Your task to perform on an android device: open app "Pinterest" (install if not already installed) and go to login screen Image 0: 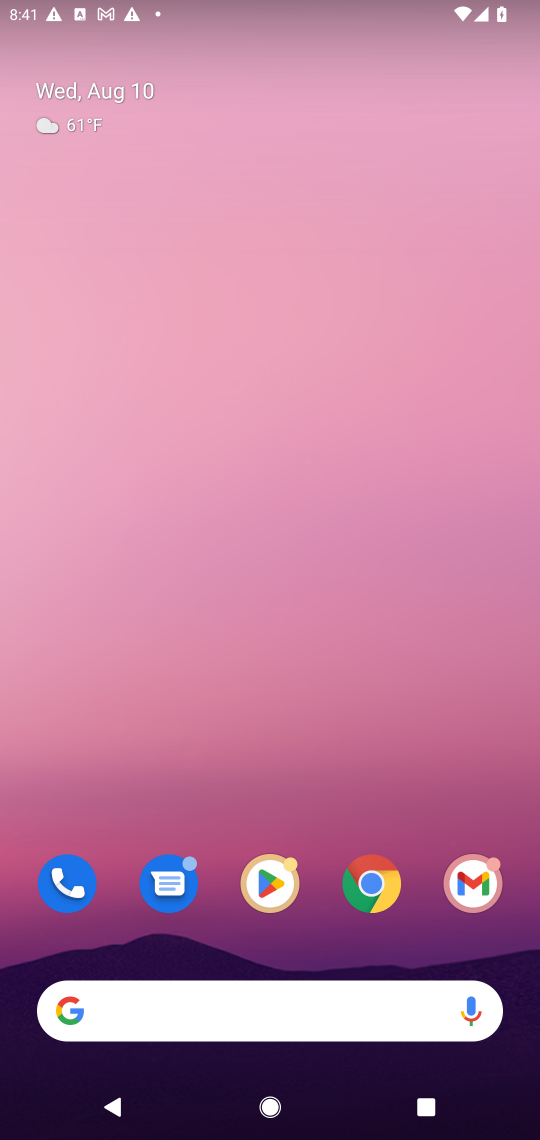
Step 0: click (289, 866)
Your task to perform on an android device: open app "Pinterest" (install if not already installed) and go to login screen Image 1: 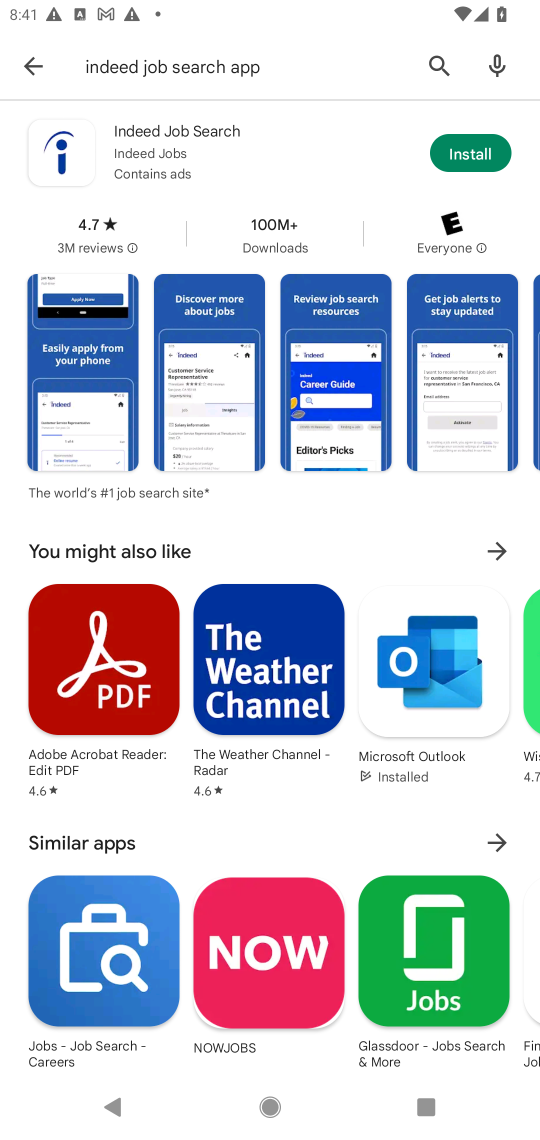
Step 1: click (423, 39)
Your task to perform on an android device: open app "Pinterest" (install if not already installed) and go to login screen Image 2: 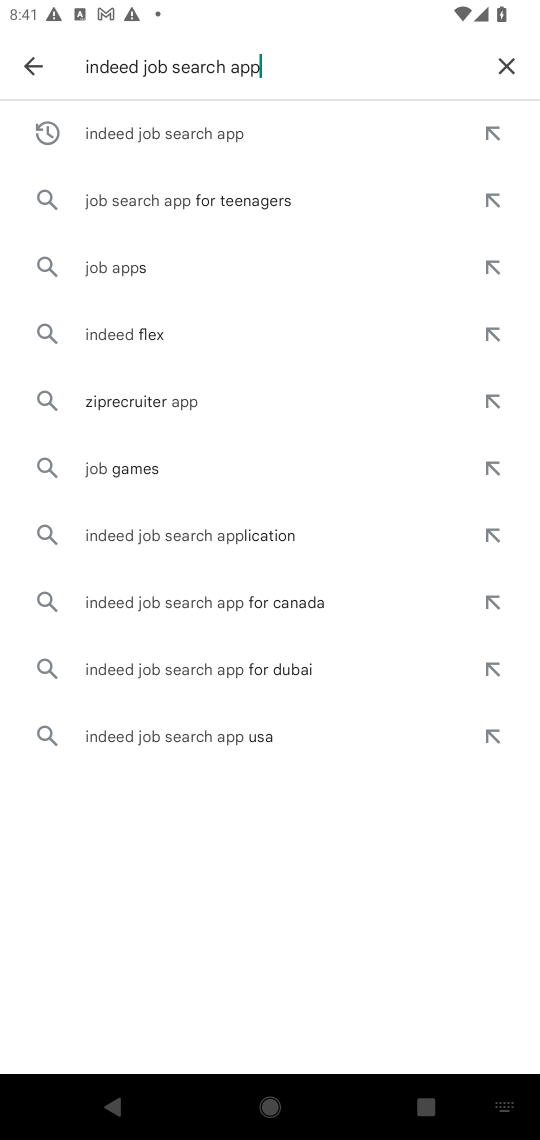
Step 2: click (504, 58)
Your task to perform on an android device: open app "Pinterest" (install if not already installed) and go to login screen Image 3: 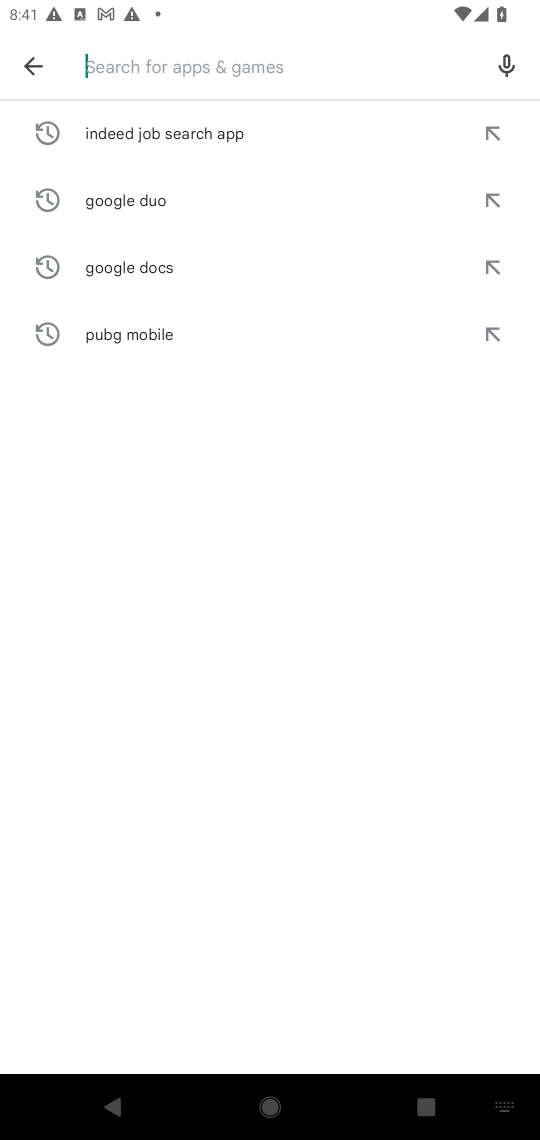
Step 3: type "Pinterest"
Your task to perform on an android device: open app "Pinterest" (install if not already installed) and go to login screen Image 4: 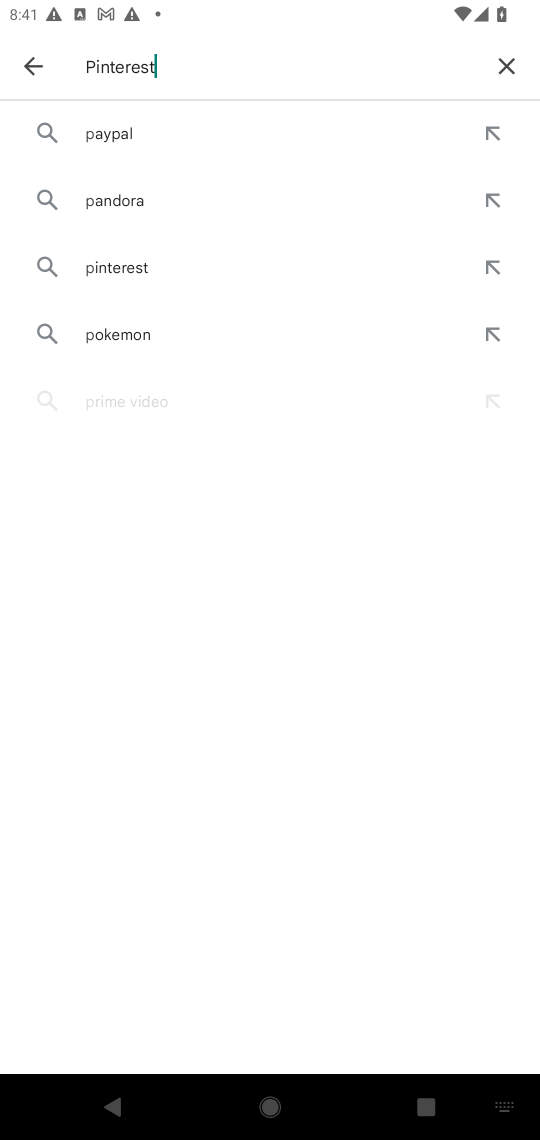
Step 4: type ""
Your task to perform on an android device: open app "Pinterest" (install if not already installed) and go to login screen Image 5: 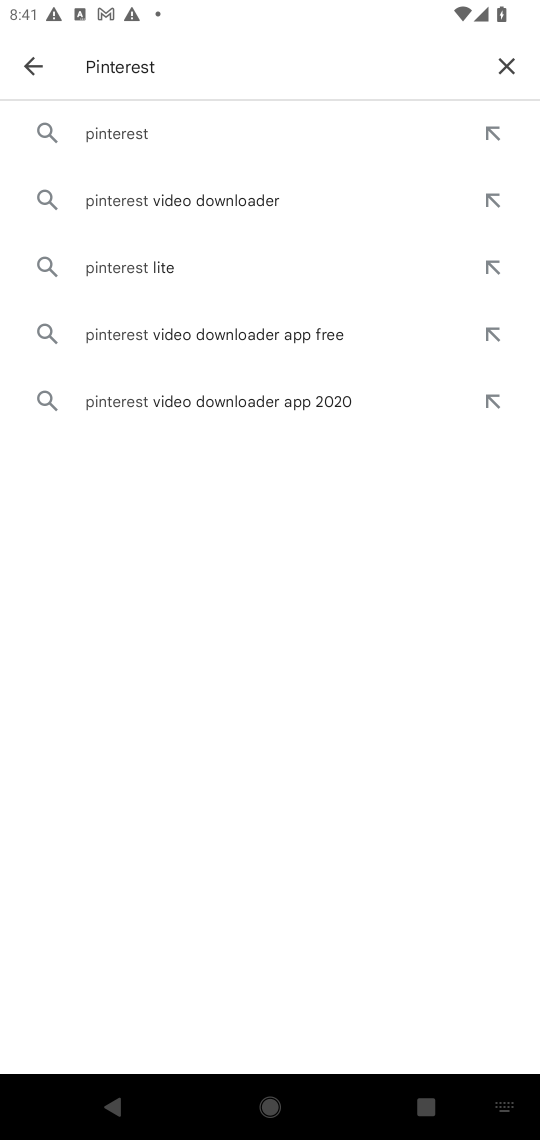
Step 5: click (139, 126)
Your task to perform on an android device: open app "Pinterest" (install if not already installed) and go to login screen Image 6: 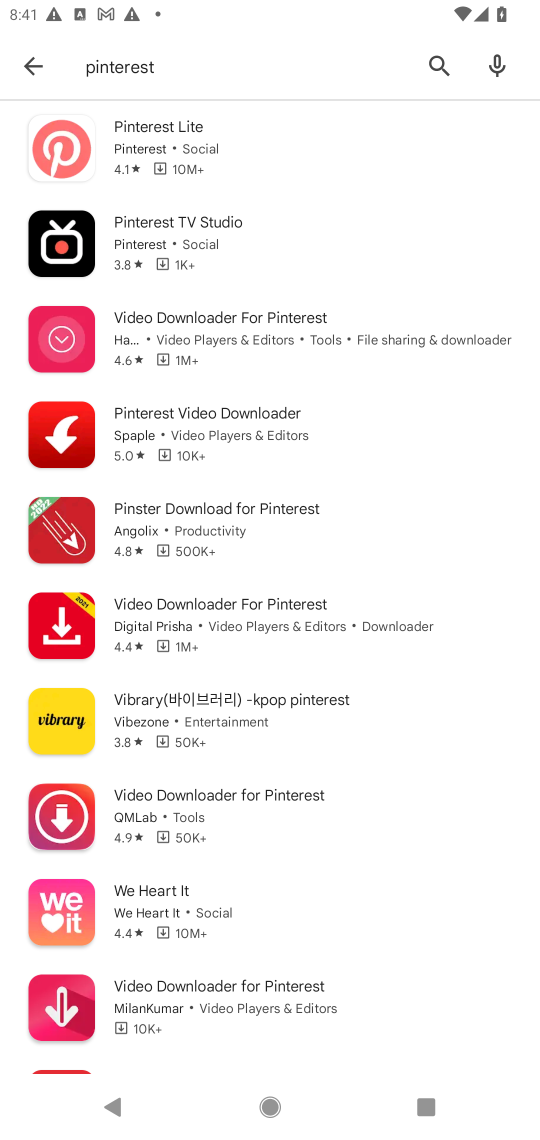
Step 6: click (204, 160)
Your task to perform on an android device: open app "Pinterest" (install if not already installed) and go to login screen Image 7: 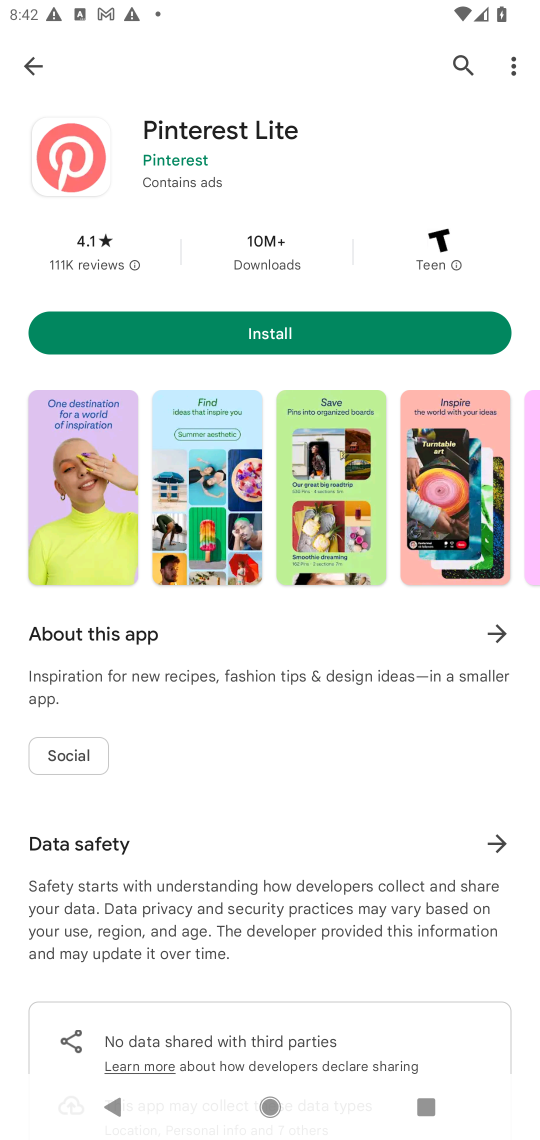
Step 7: click (386, 317)
Your task to perform on an android device: open app "Pinterest" (install if not already installed) and go to login screen Image 8: 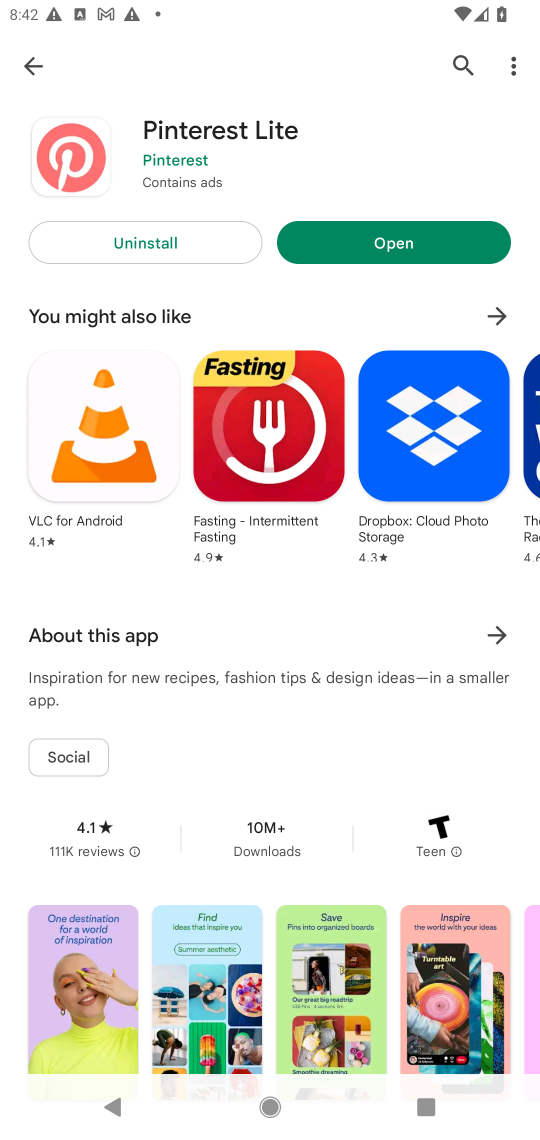
Step 8: click (376, 237)
Your task to perform on an android device: open app "Pinterest" (install if not already installed) and go to login screen Image 9: 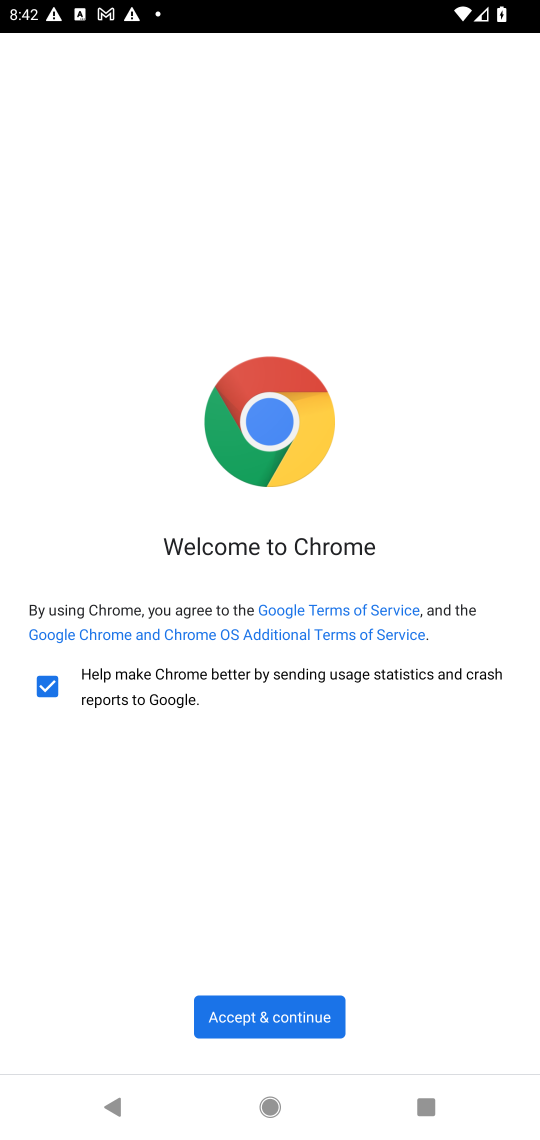
Step 9: press home button
Your task to perform on an android device: open app "Pinterest" (install if not already installed) and go to login screen Image 10: 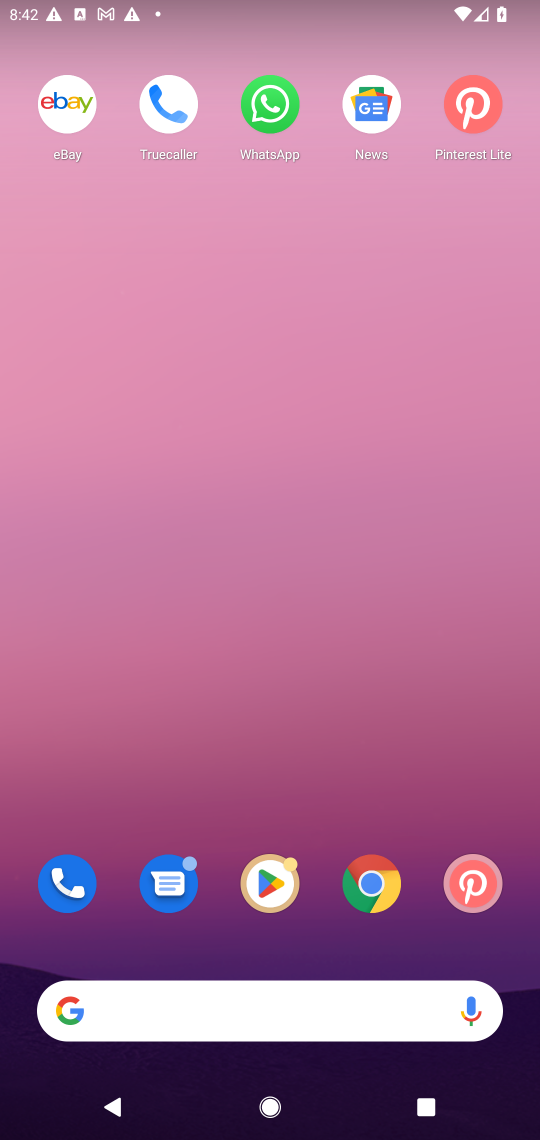
Step 10: click (269, 881)
Your task to perform on an android device: open app "Pinterest" (install if not already installed) and go to login screen Image 11: 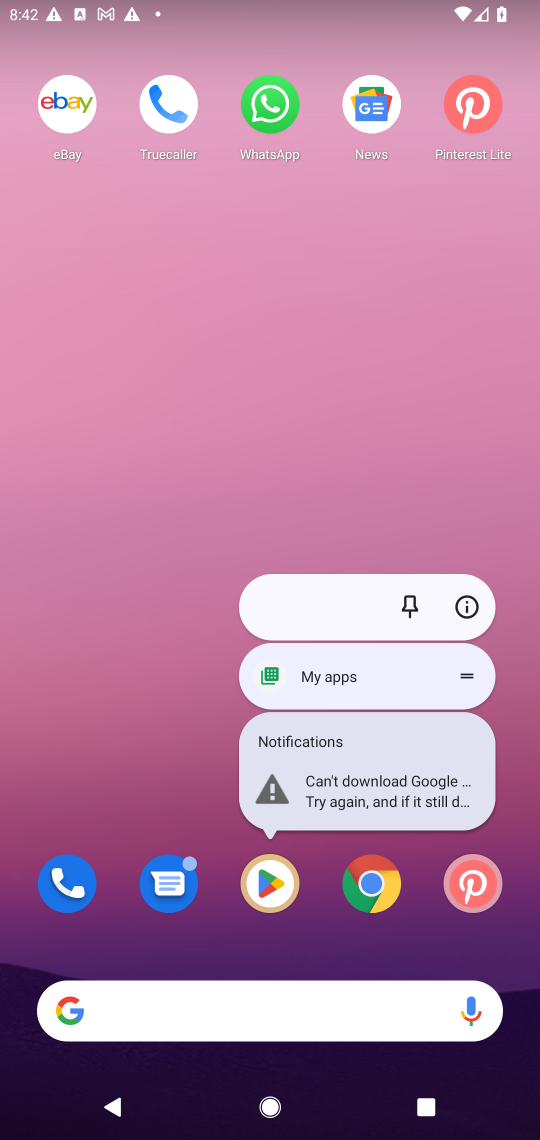
Step 11: click (475, 115)
Your task to perform on an android device: open app "Pinterest" (install if not already installed) and go to login screen Image 12: 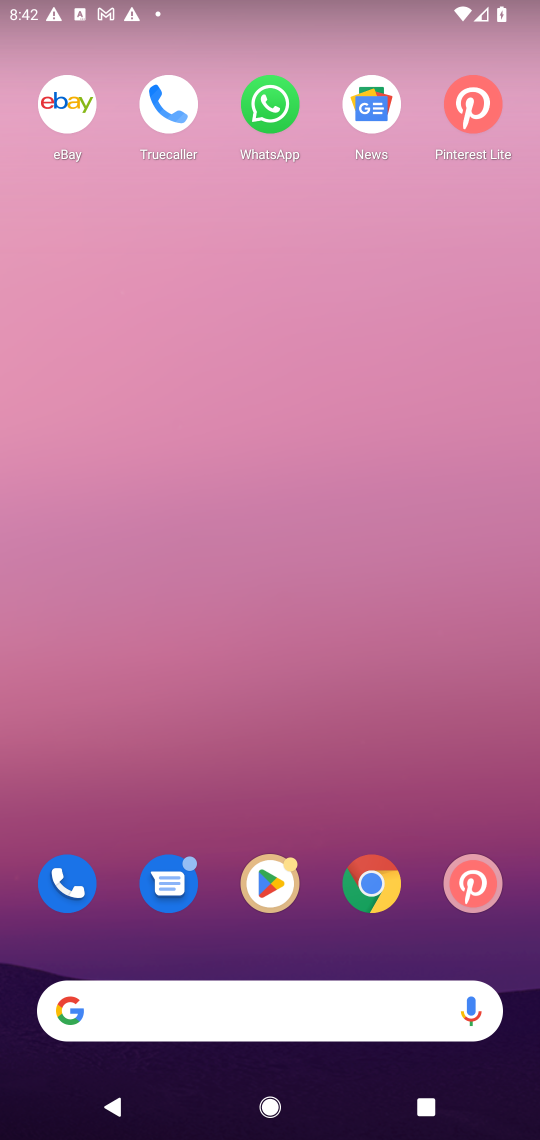
Step 12: click (463, 109)
Your task to perform on an android device: open app "Pinterest" (install if not already installed) and go to login screen Image 13: 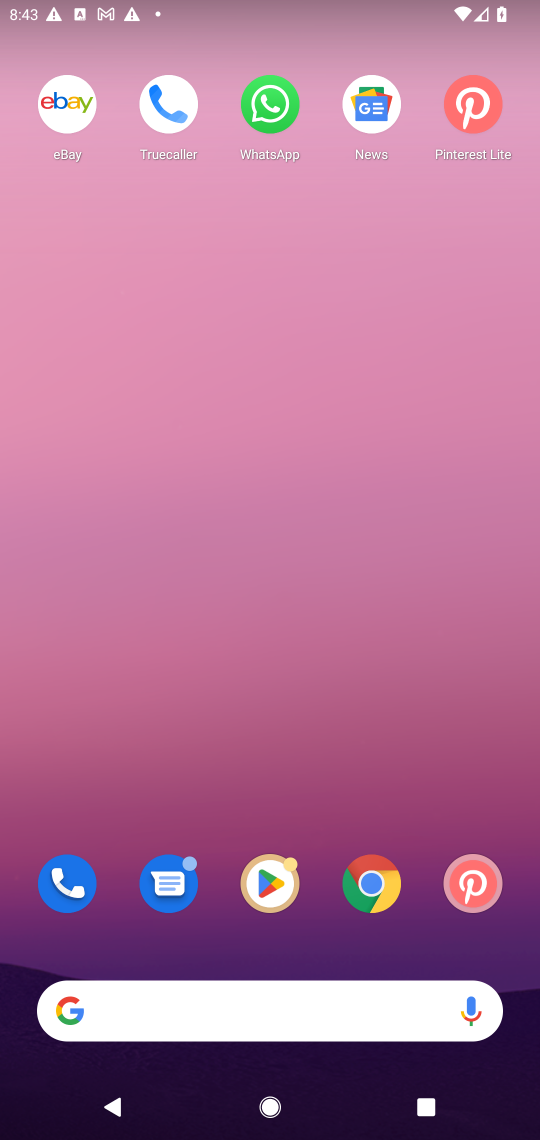
Step 13: click (475, 93)
Your task to perform on an android device: open app "Pinterest" (install if not already installed) and go to login screen Image 14: 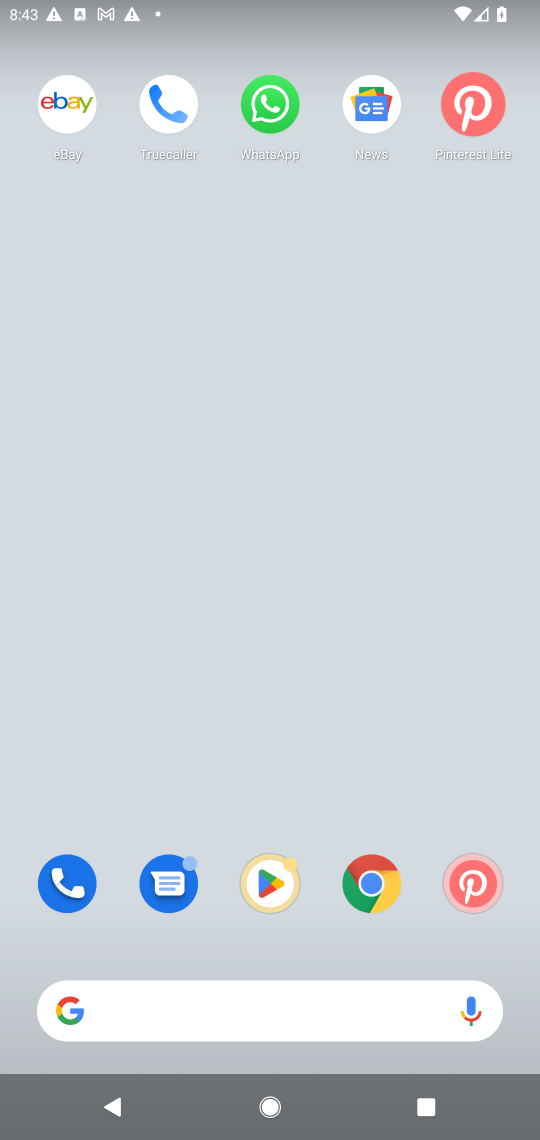
Step 14: task complete